Your task to perform on an android device: Open maps Image 0: 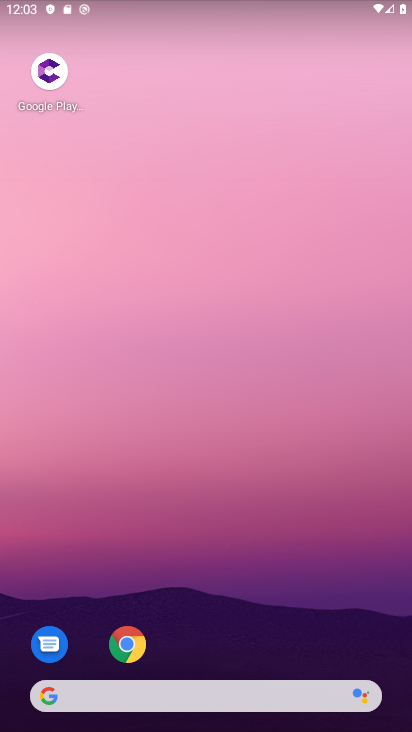
Step 0: drag from (203, 693) to (202, 35)
Your task to perform on an android device: Open maps Image 1: 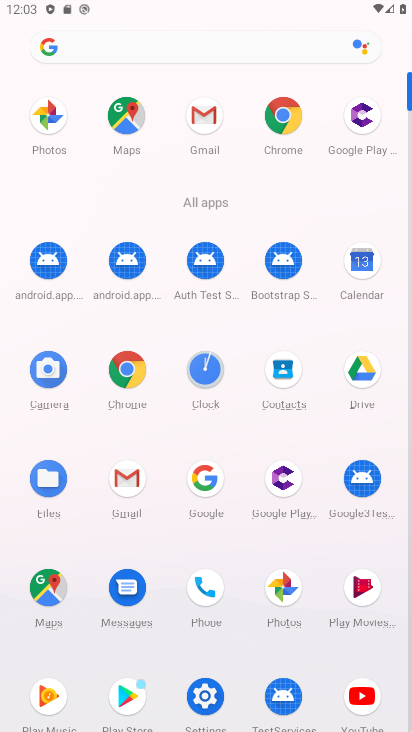
Step 1: click (121, 116)
Your task to perform on an android device: Open maps Image 2: 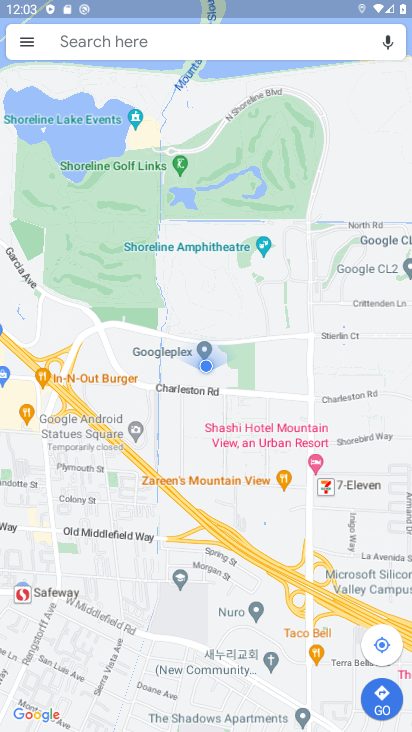
Step 2: task complete